Your task to perform on an android device: Open settings on Google Maps Image 0: 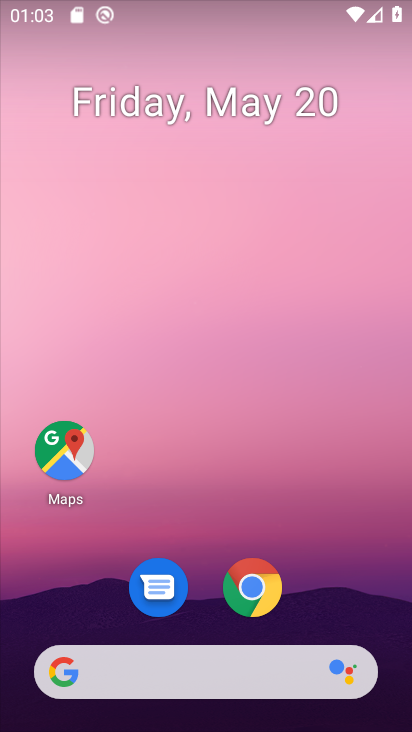
Step 0: drag from (368, 609) to (363, 230)
Your task to perform on an android device: Open settings on Google Maps Image 1: 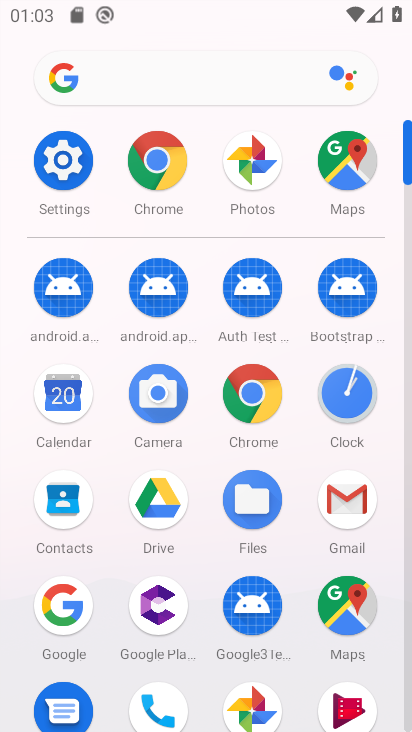
Step 1: click (349, 618)
Your task to perform on an android device: Open settings on Google Maps Image 2: 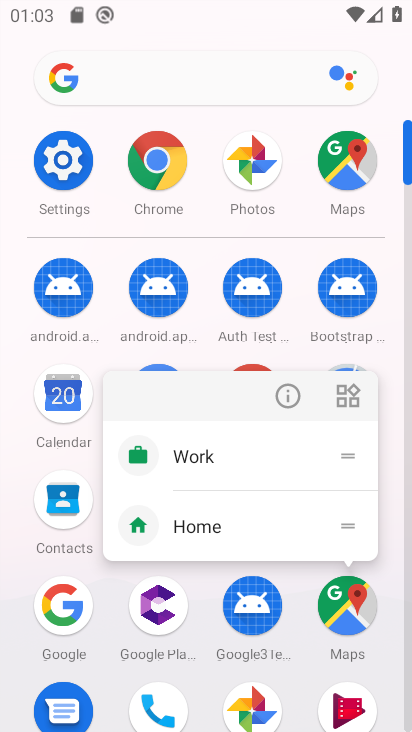
Step 2: click (351, 622)
Your task to perform on an android device: Open settings on Google Maps Image 3: 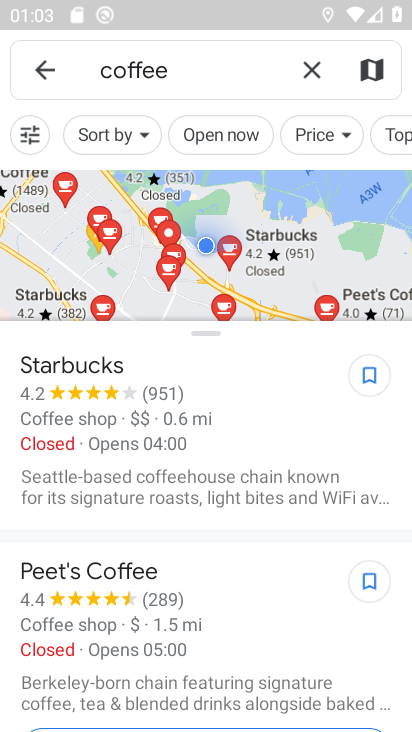
Step 3: task complete